Your task to perform on an android device: turn off improve location accuracy Image 0: 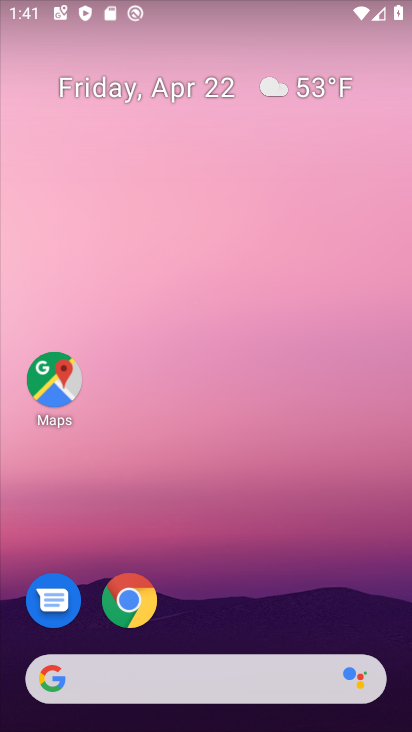
Step 0: drag from (242, 723) to (241, 231)
Your task to perform on an android device: turn off improve location accuracy Image 1: 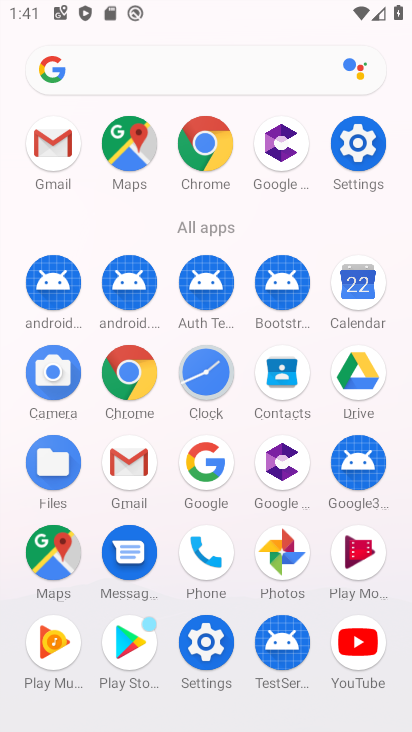
Step 1: click (361, 139)
Your task to perform on an android device: turn off improve location accuracy Image 2: 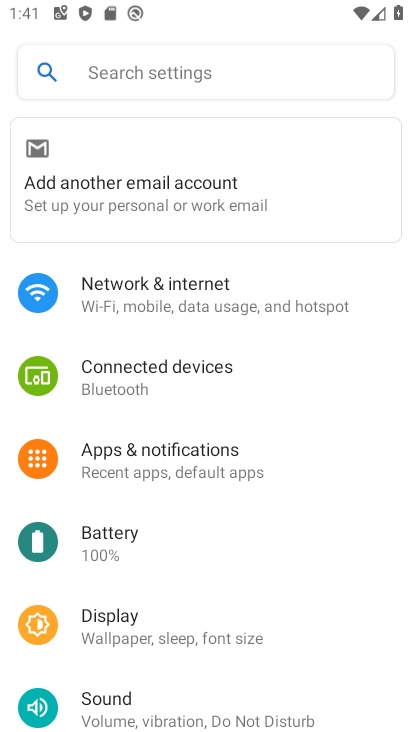
Step 2: drag from (175, 676) to (178, 341)
Your task to perform on an android device: turn off improve location accuracy Image 3: 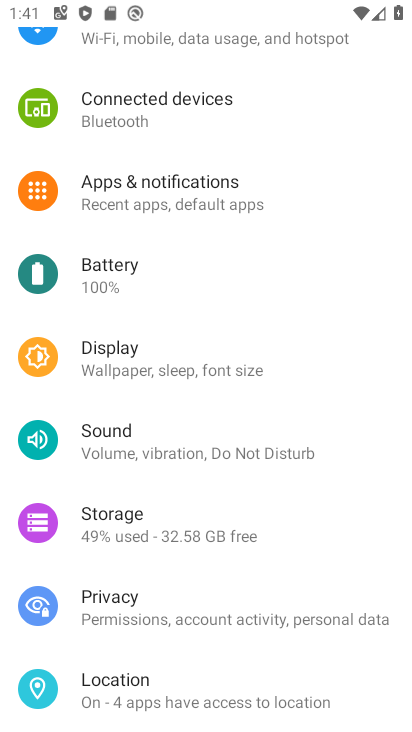
Step 3: click (124, 686)
Your task to perform on an android device: turn off improve location accuracy Image 4: 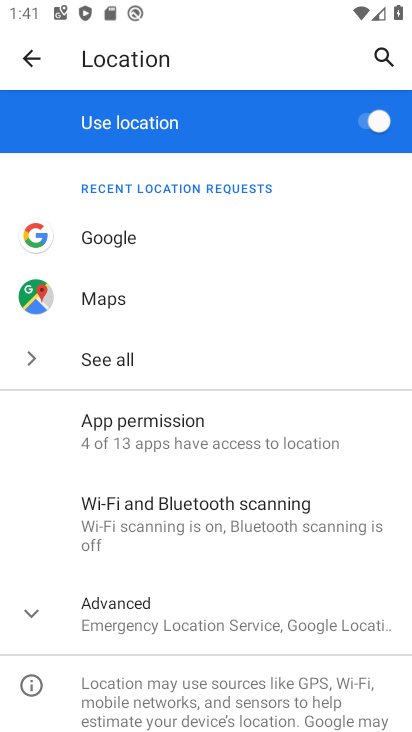
Step 4: click (129, 616)
Your task to perform on an android device: turn off improve location accuracy Image 5: 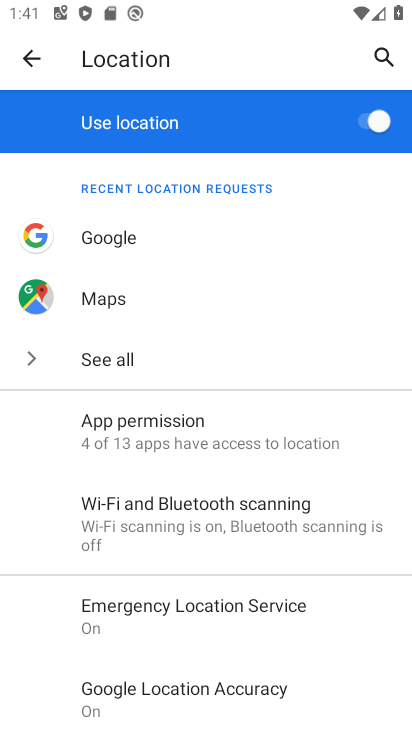
Step 5: drag from (181, 663) to (203, 394)
Your task to perform on an android device: turn off improve location accuracy Image 6: 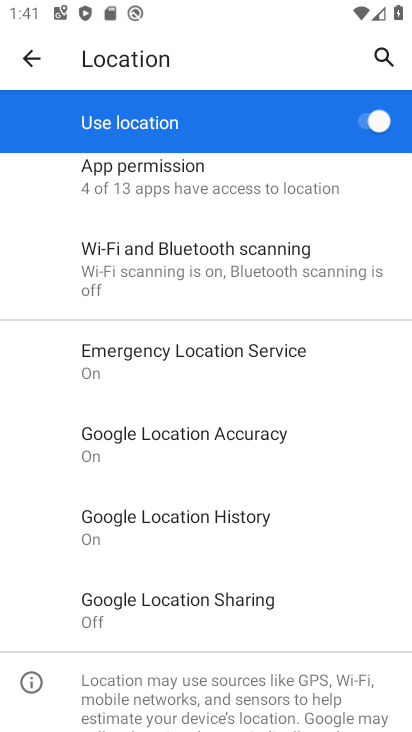
Step 6: click (185, 434)
Your task to perform on an android device: turn off improve location accuracy Image 7: 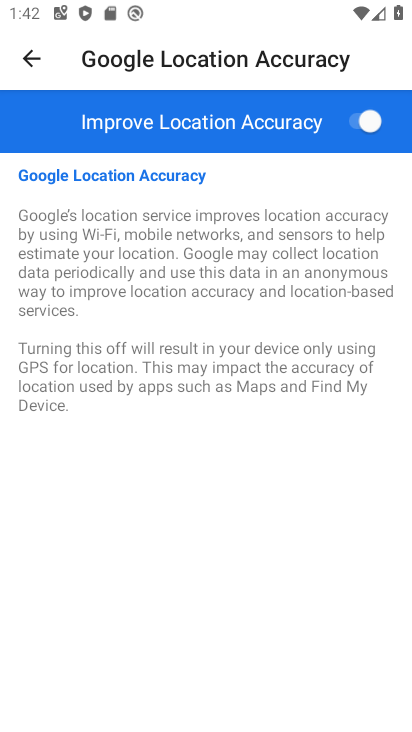
Step 7: click (356, 124)
Your task to perform on an android device: turn off improve location accuracy Image 8: 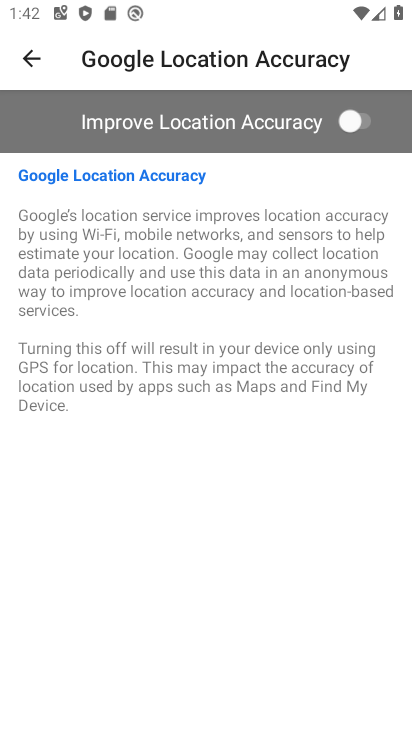
Step 8: task complete